Your task to perform on an android device: check storage Image 0: 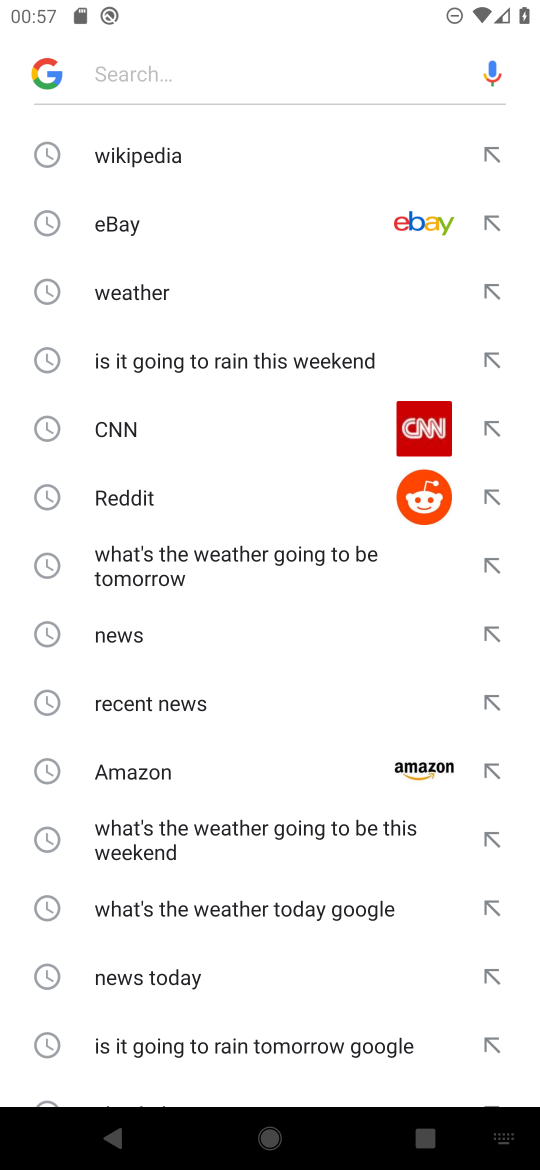
Step 0: press home button
Your task to perform on an android device: check storage Image 1: 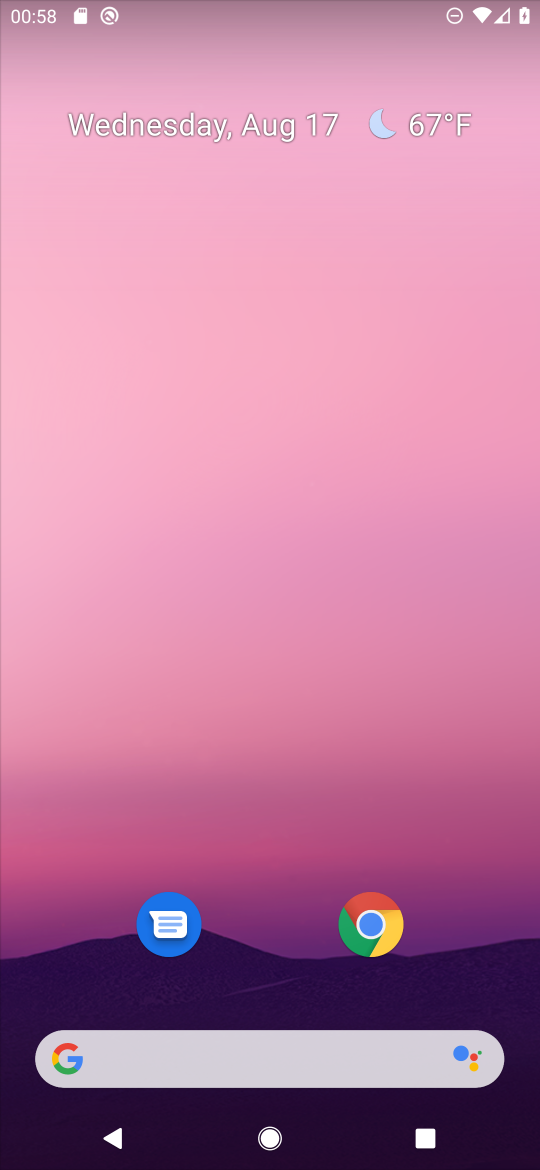
Step 1: drag from (245, 993) to (360, 31)
Your task to perform on an android device: check storage Image 2: 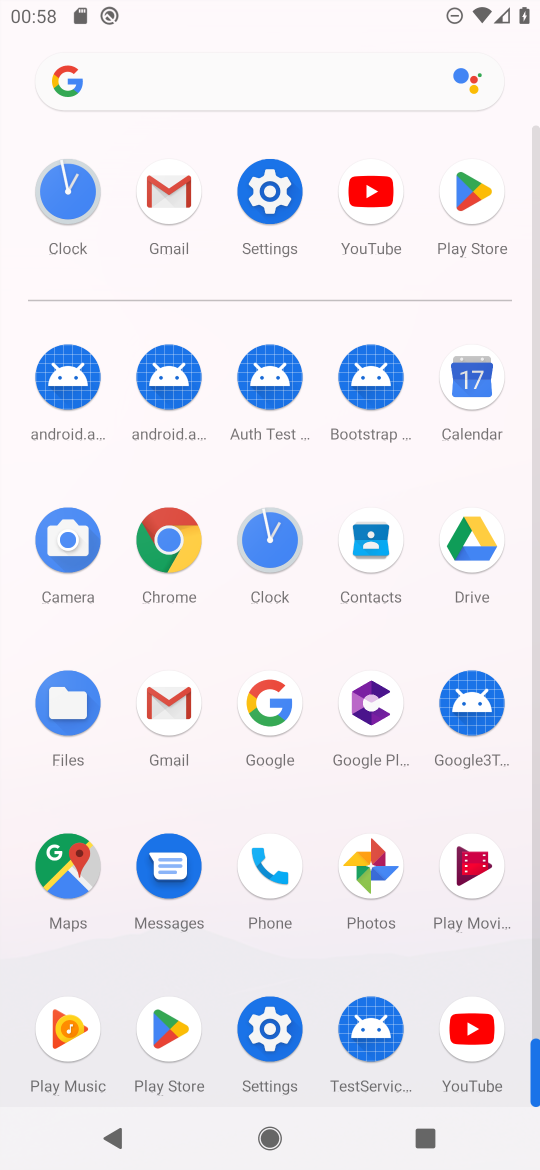
Step 2: click (256, 213)
Your task to perform on an android device: check storage Image 3: 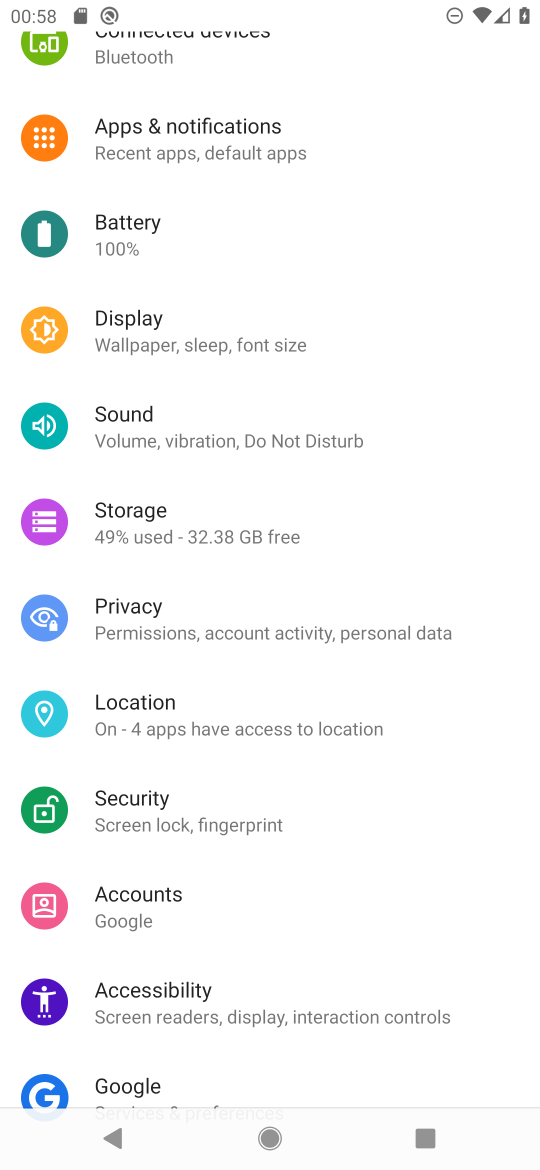
Step 3: click (205, 529)
Your task to perform on an android device: check storage Image 4: 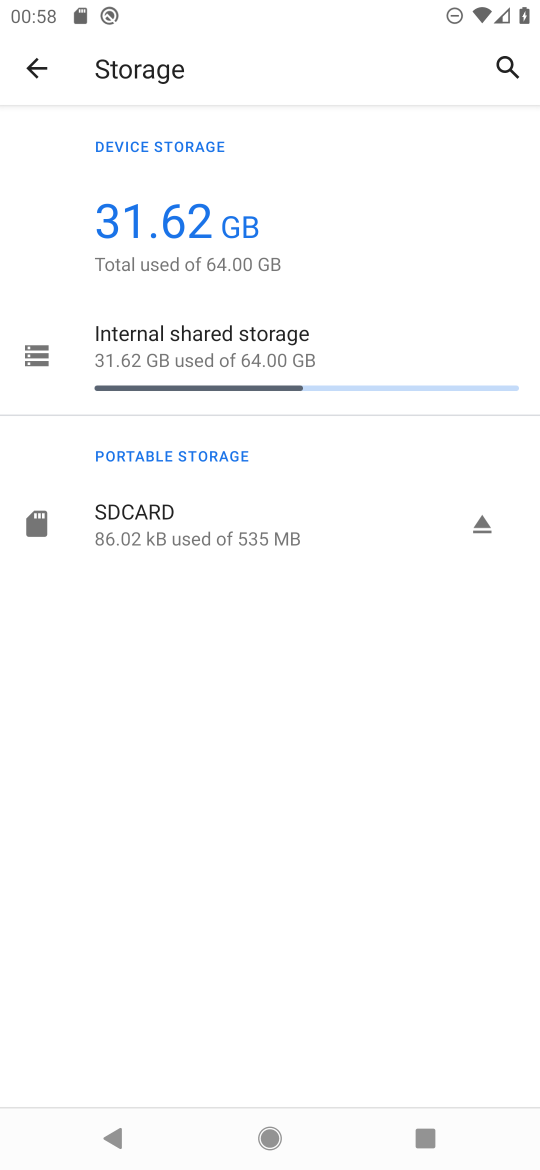
Step 4: task complete